Your task to perform on an android device: What's on my calendar today? Image 0: 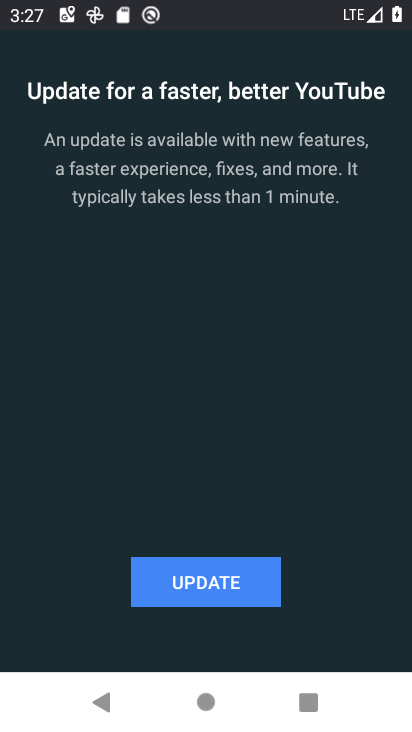
Step 0: press home button
Your task to perform on an android device: What's on my calendar today? Image 1: 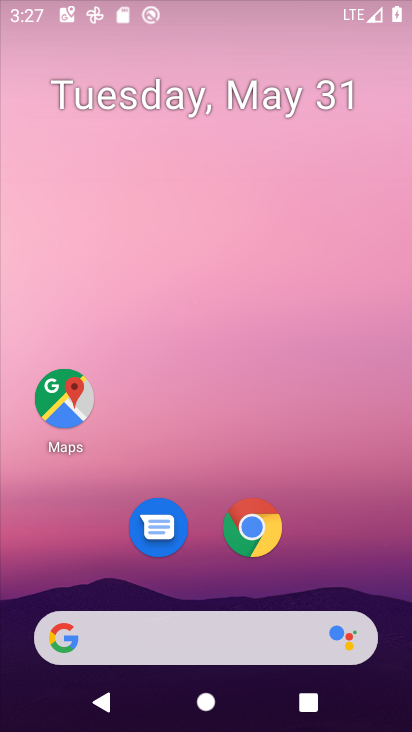
Step 1: drag from (378, 401) to (400, 534)
Your task to perform on an android device: What's on my calendar today? Image 2: 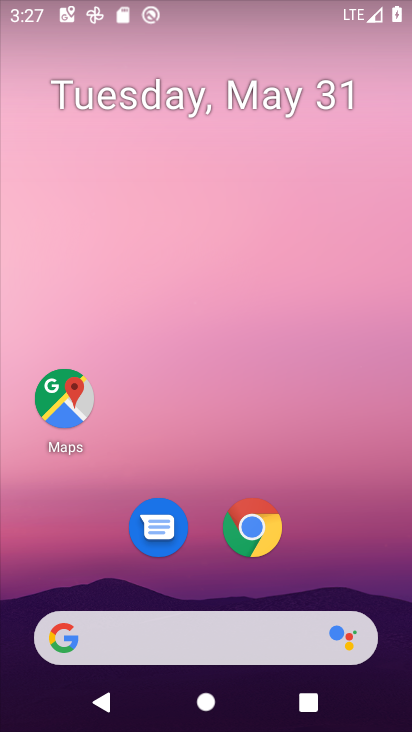
Step 2: drag from (351, 486) to (304, 88)
Your task to perform on an android device: What's on my calendar today? Image 3: 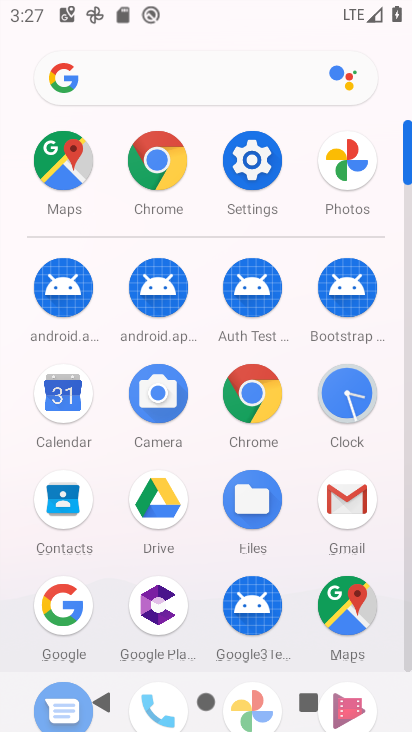
Step 3: click (77, 402)
Your task to perform on an android device: What's on my calendar today? Image 4: 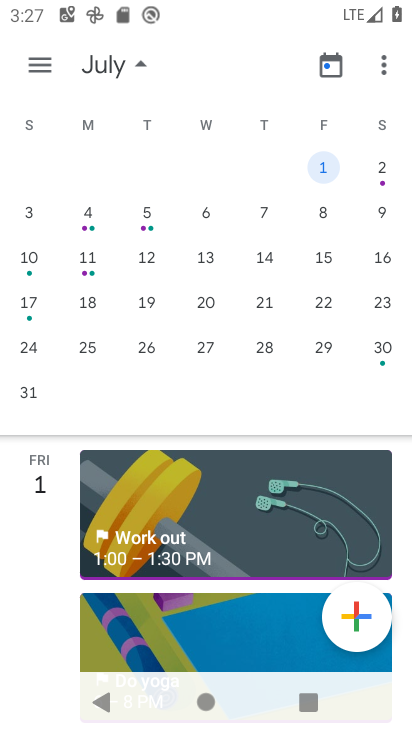
Step 4: task complete